Your task to perform on an android device: Open ESPN.com Image 0: 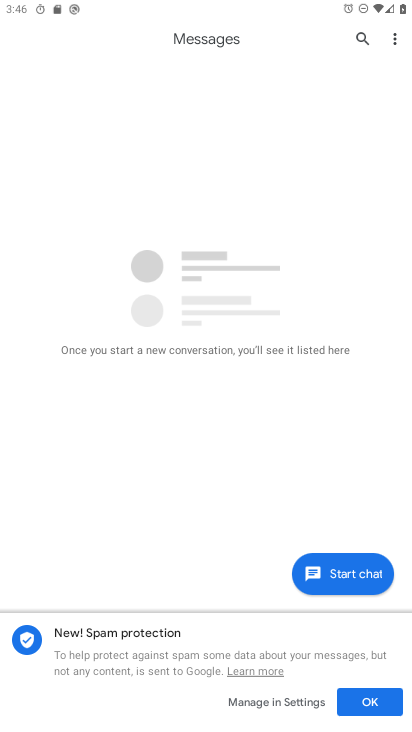
Step 0: press home button
Your task to perform on an android device: Open ESPN.com Image 1: 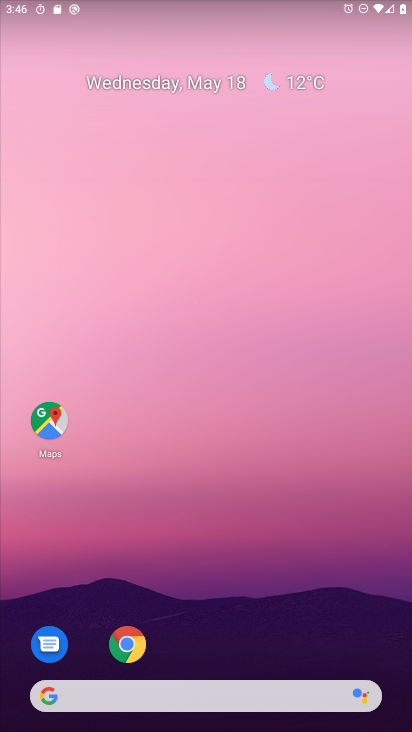
Step 1: click (129, 637)
Your task to perform on an android device: Open ESPN.com Image 2: 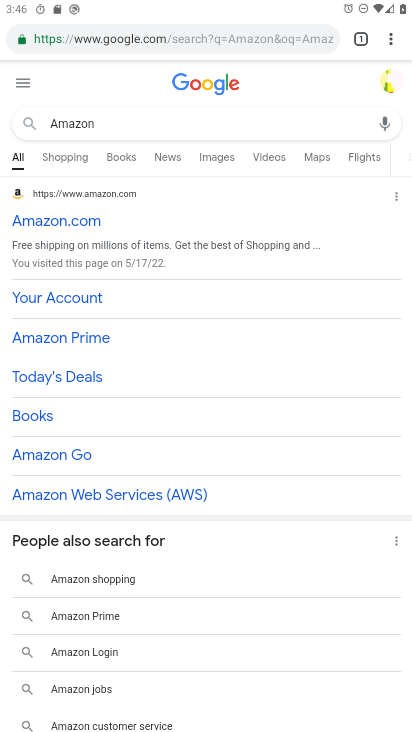
Step 2: click (338, 38)
Your task to perform on an android device: Open ESPN.com Image 3: 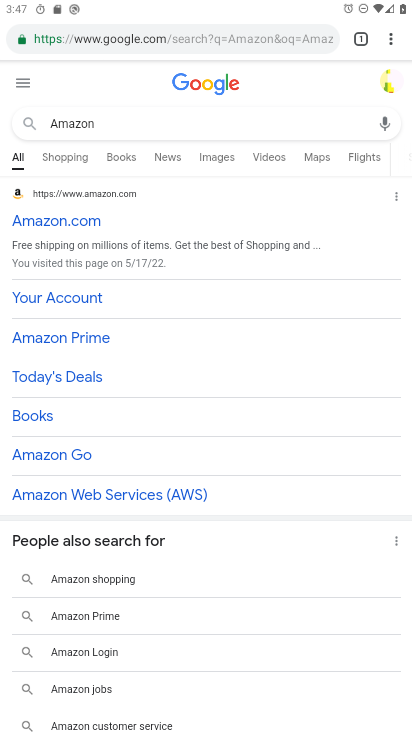
Step 3: click (330, 35)
Your task to perform on an android device: Open ESPN.com Image 4: 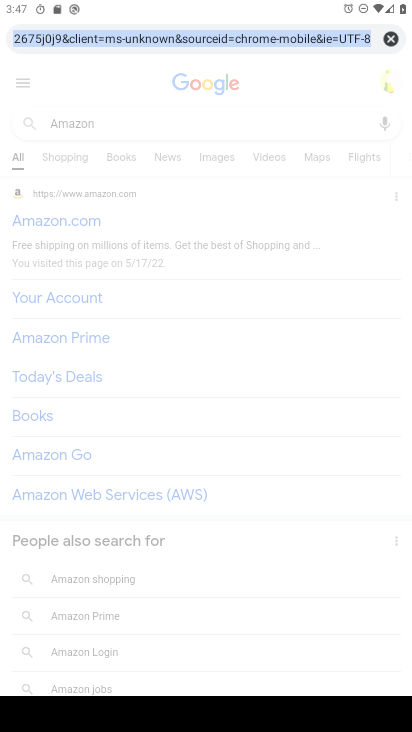
Step 4: click (390, 42)
Your task to perform on an android device: Open ESPN.com Image 5: 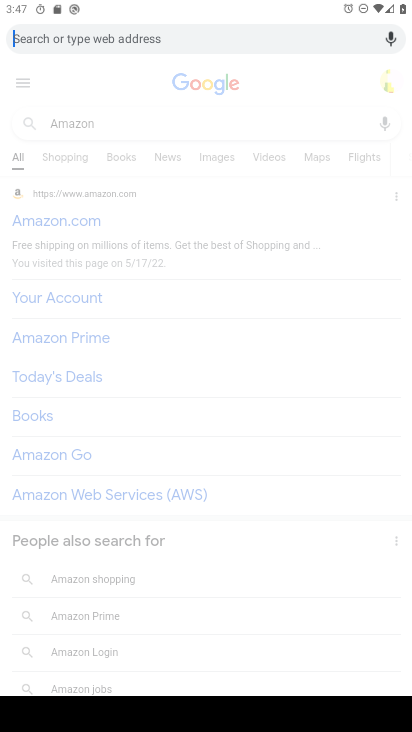
Step 5: type "ESPN.com"
Your task to perform on an android device: Open ESPN.com Image 6: 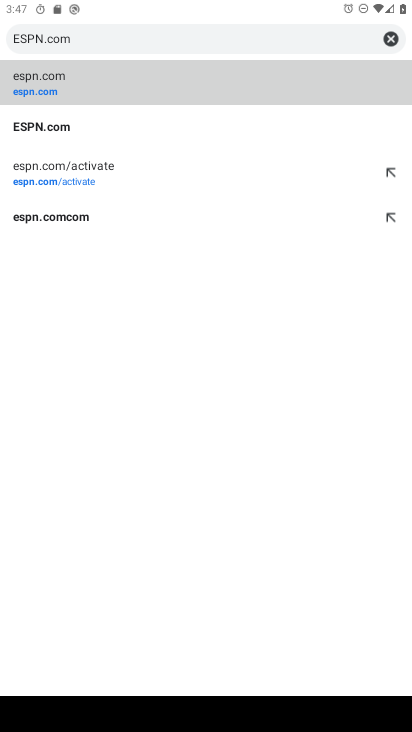
Step 6: click (46, 123)
Your task to perform on an android device: Open ESPN.com Image 7: 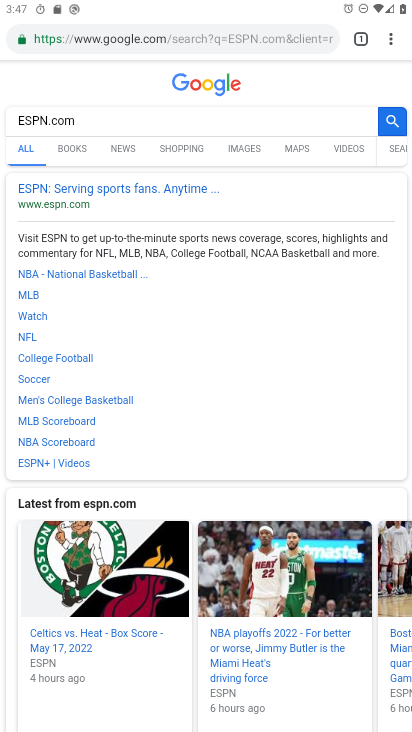
Step 7: task complete